Your task to perform on an android device: turn off picture-in-picture Image 0: 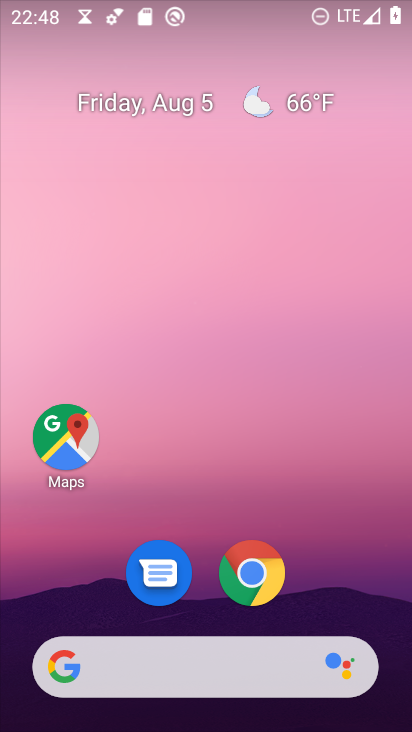
Step 0: click (253, 572)
Your task to perform on an android device: turn off picture-in-picture Image 1: 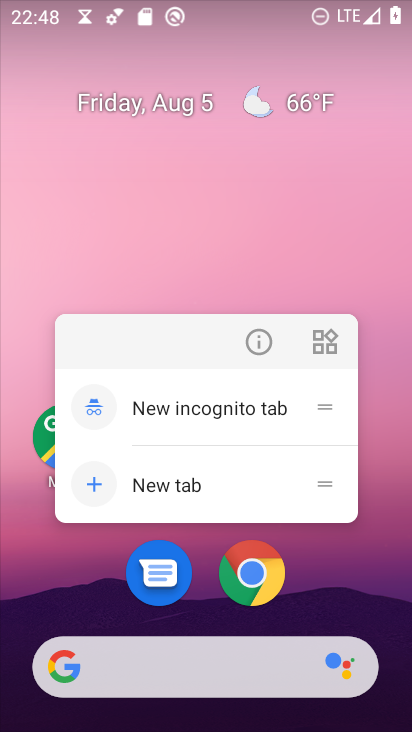
Step 1: click (259, 341)
Your task to perform on an android device: turn off picture-in-picture Image 2: 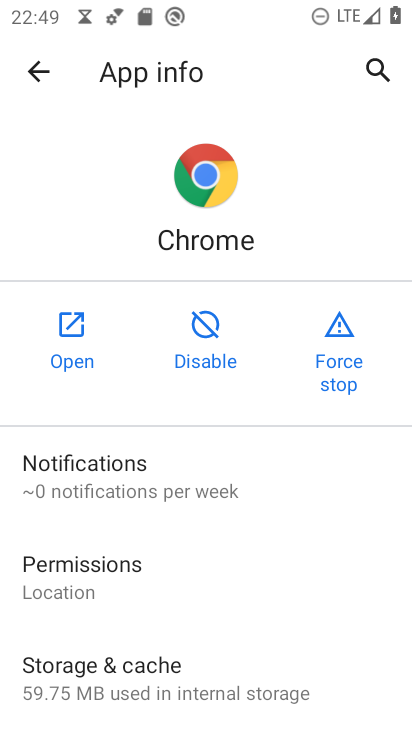
Step 2: drag from (105, 618) to (158, 438)
Your task to perform on an android device: turn off picture-in-picture Image 3: 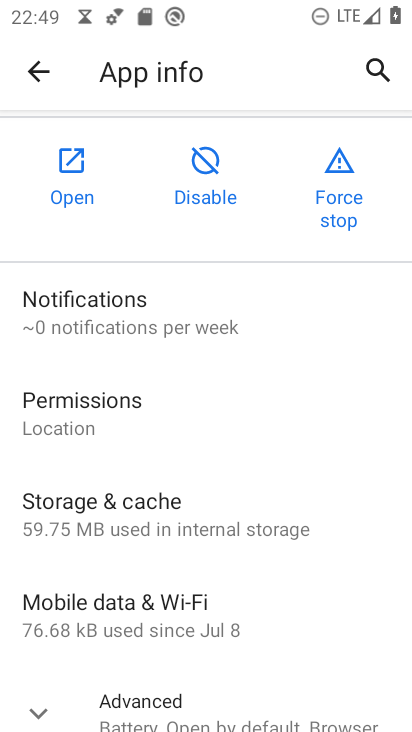
Step 3: drag from (117, 572) to (221, 397)
Your task to perform on an android device: turn off picture-in-picture Image 4: 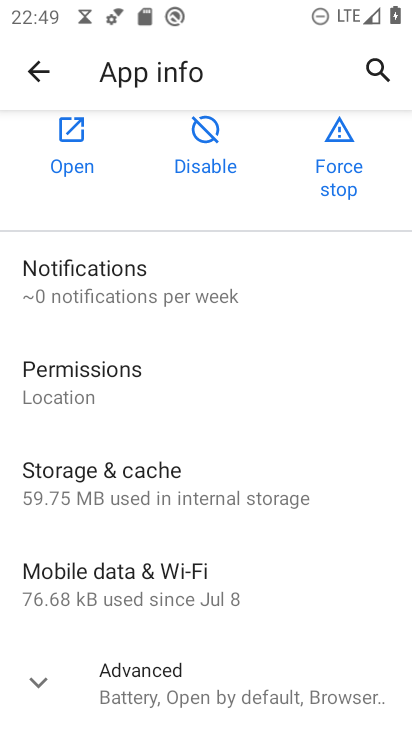
Step 4: click (178, 699)
Your task to perform on an android device: turn off picture-in-picture Image 5: 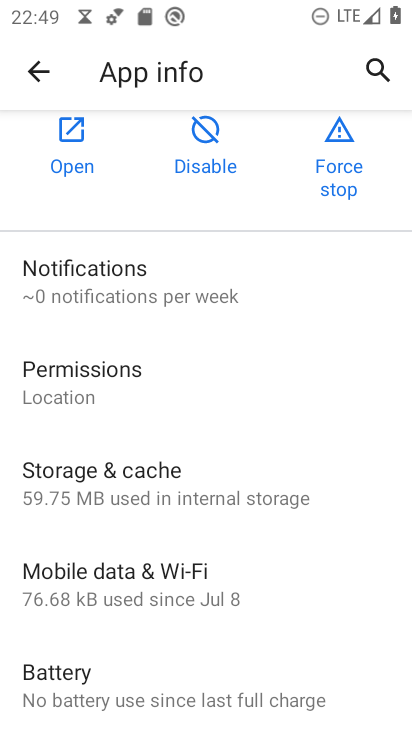
Step 5: drag from (212, 556) to (267, 403)
Your task to perform on an android device: turn off picture-in-picture Image 6: 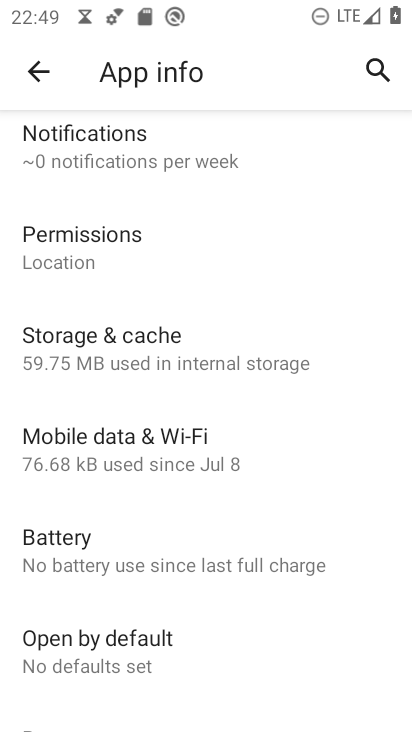
Step 6: drag from (184, 591) to (263, 441)
Your task to perform on an android device: turn off picture-in-picture Image 7: 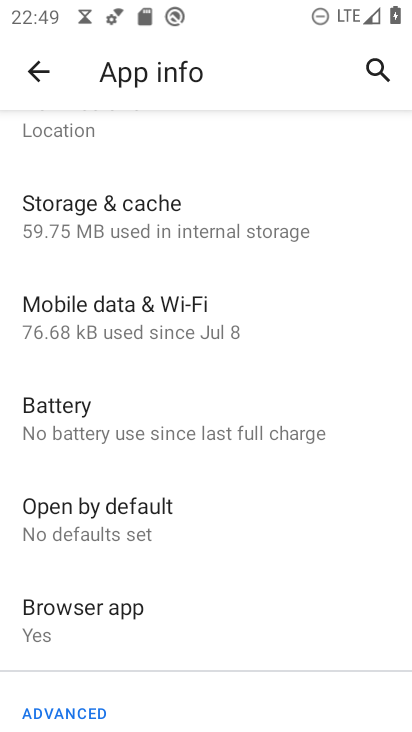
Step 7: drag from (183, 597) to (231, 474)
Your task to perform on an android device: turn off picture-in-picture Image 8: 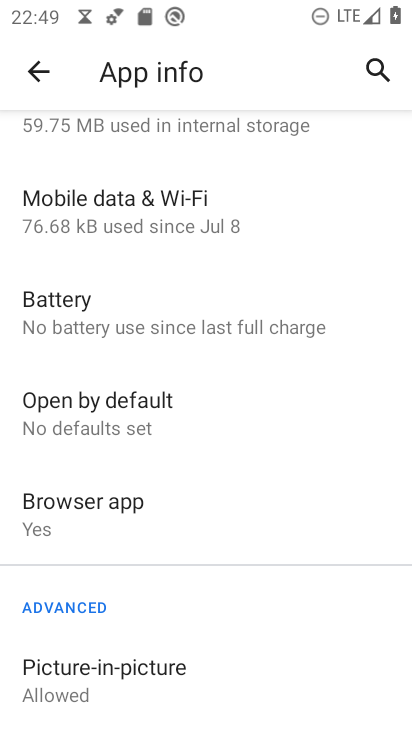
Step 8: click (126, 669)
Your task to perform on an android device: turn off picture-in-picture Image 9: 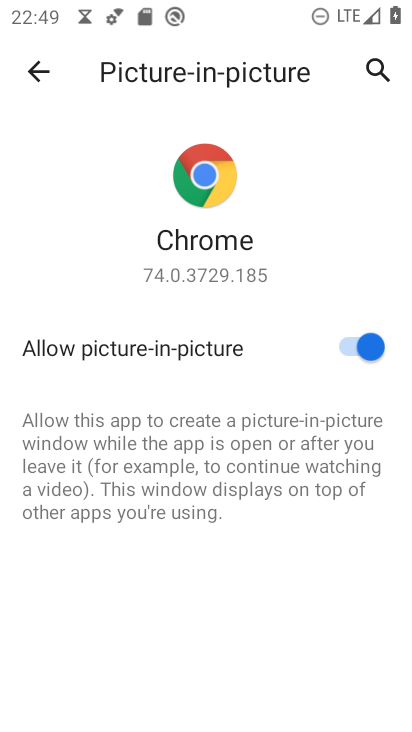
Step 9: click (346, 350)
Your task to perform on an android device: turn off picture-in-picture Image 10: 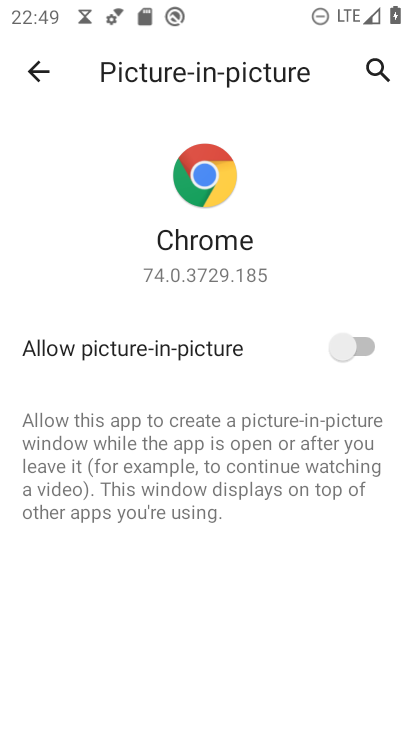
Step 10: task complete